Your task to perform on an android device: create a new album in the google photos Image 0: 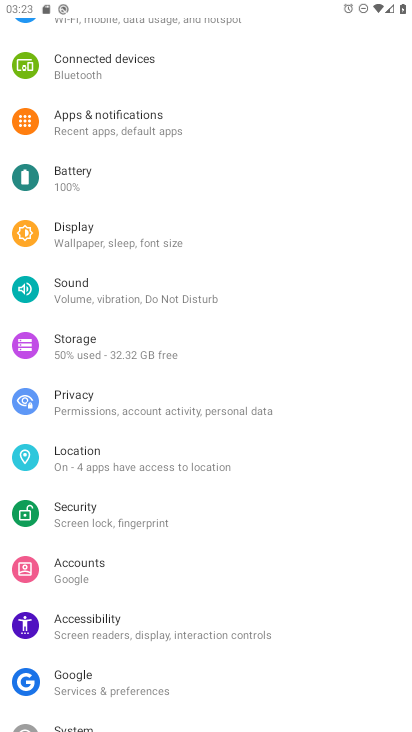
Step 0: press home button
Your task to perform on an android device: create a new album in the google photos Image 1: 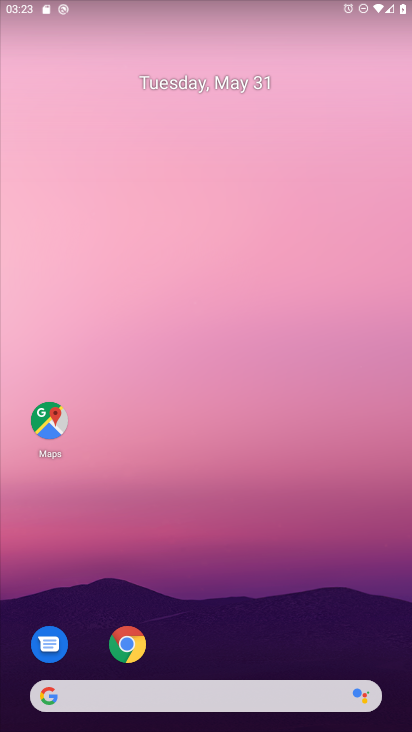
Step 1: drag from (266, 615) to (182, 77)
Your task to perform on an android device: create a new album in the google photos Image 2: 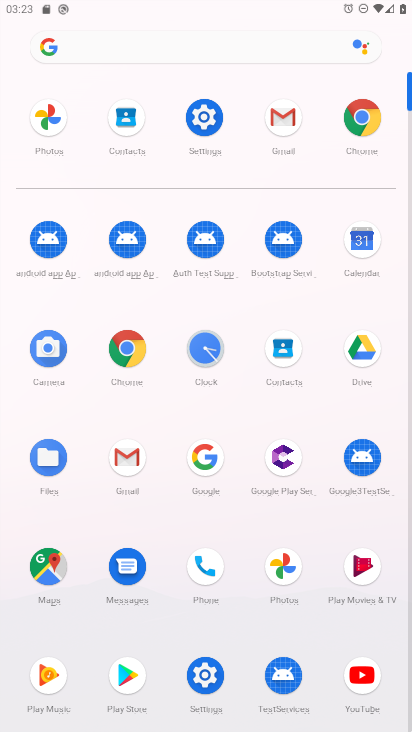
Step 2: click (293, 562)
Your task to perform on an android device: create a new album in the google photos Image 3: 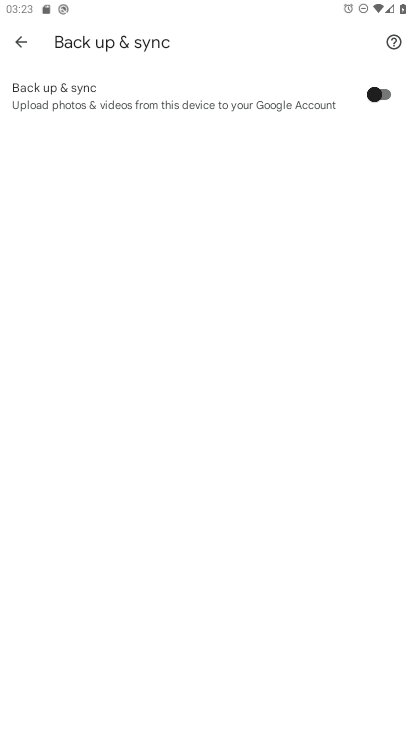
Step 3: click (13, 48)
Your task to perform on an android device: create a new album in the google photos Image 4: 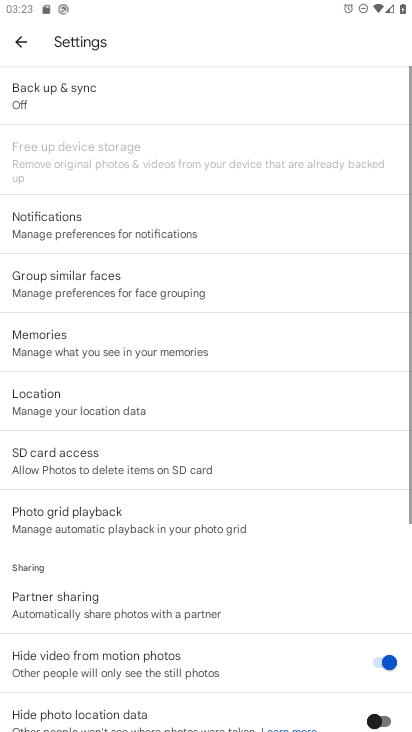
Step 4: click (13, 48)
Your task to perform on an android device: create a new album in the google photos Image 5: 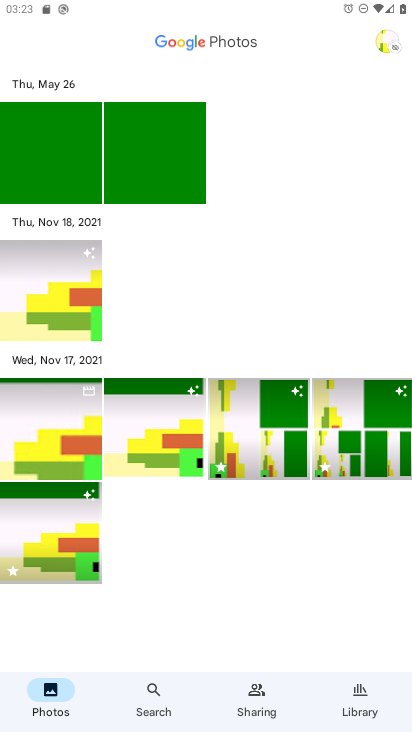
Step 5: click (370, 701)
Your task to perform on an android device: create a new album in the google photos Image 6: 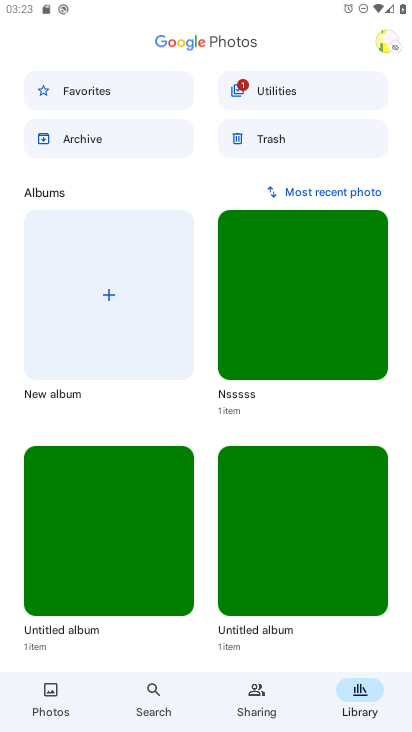
Step 6: click (98, 299)
Your task to perform on an android device: create a new album in the google photos Image 7: 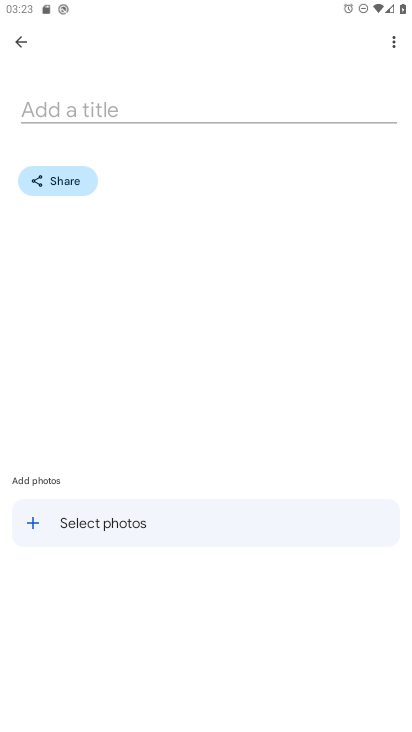
Step 7: click (155, 111)
Your task to perform on an android device: create a new album in the google photos Image 8: 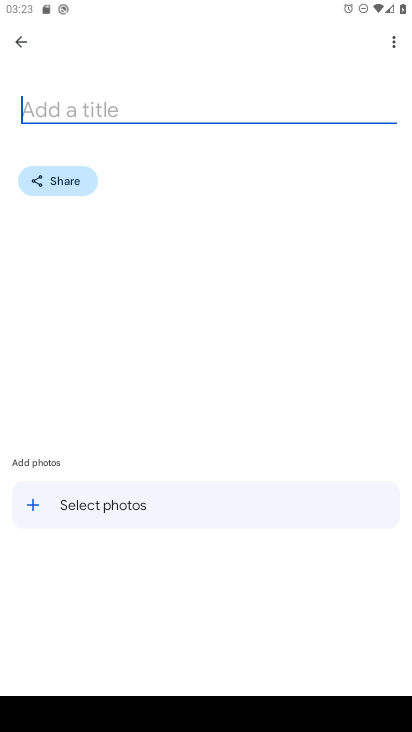
Step 8: type "jaguar"
Your task to perform on an android device: create a new album in the google photos Image 9: 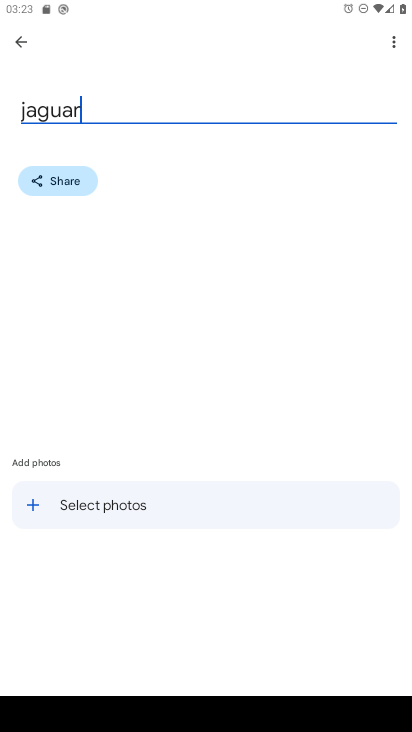
Step 9: click (91, 506)
Your task to perform on an android device: create a new album in the google photos Image 10: 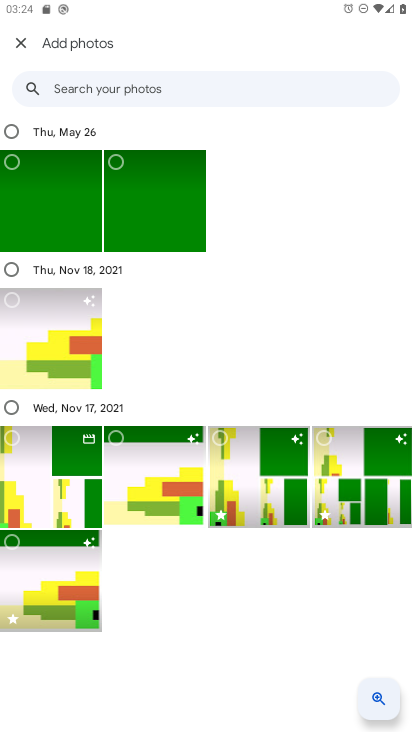
Step 10: click (18, 157)
Your task to perform on an android device: create a new album in the google photos Image 11: 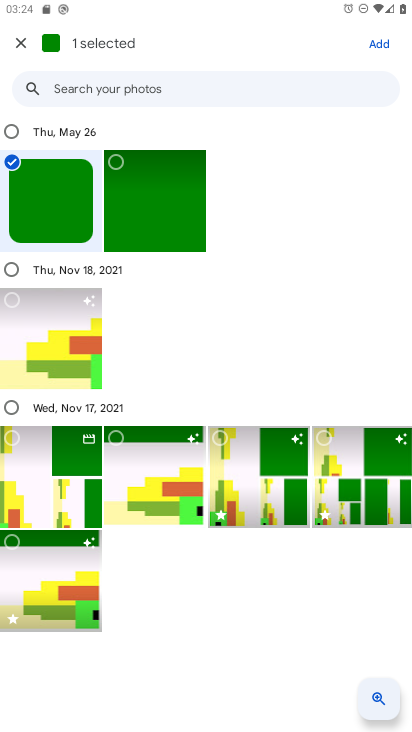
Step 11: click (381, 41)
Your task to perform on an android device: create a new album in the google photos Image 12: 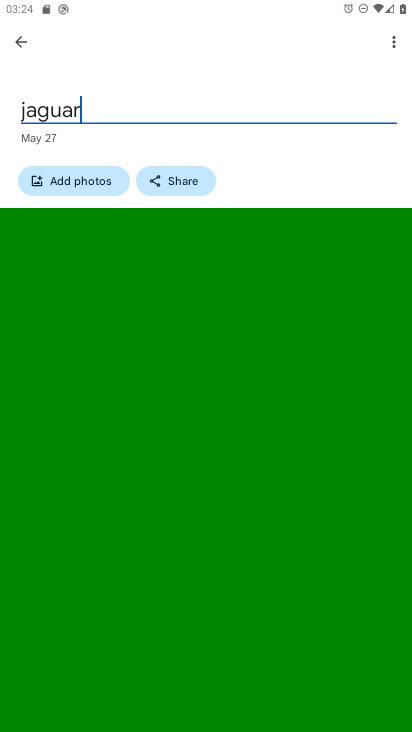
Step 12: press enter
Your task to perform on an android device: create a new album in the google photos Image 13: 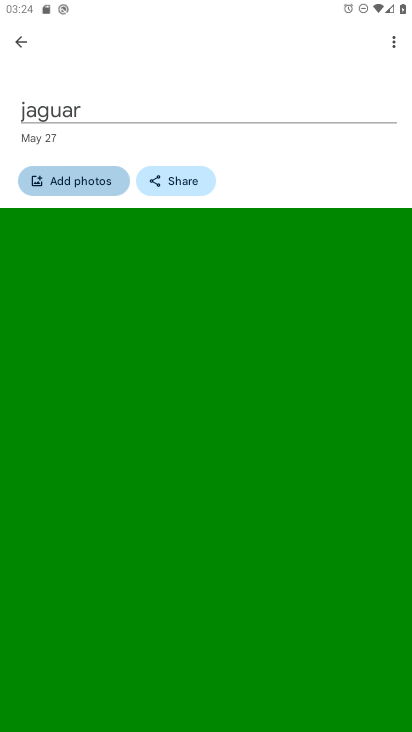
Step 13: press enter
Your task to perform on an android device: create a new album in the google photos Image 14: 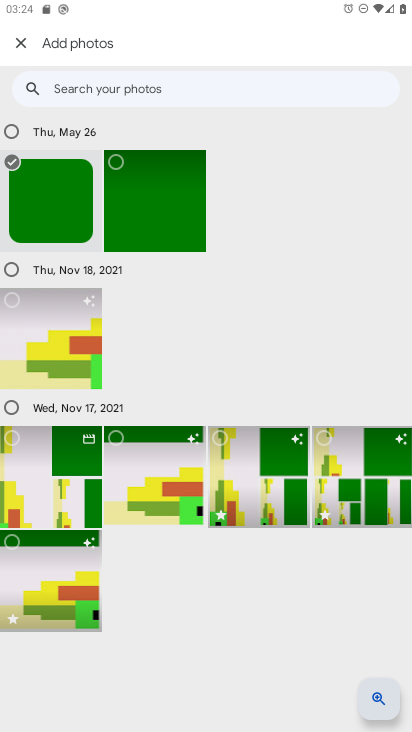
Step 14: click (139, 182)
Your task to perform on an android device: create a new album in the google photos Image 15: 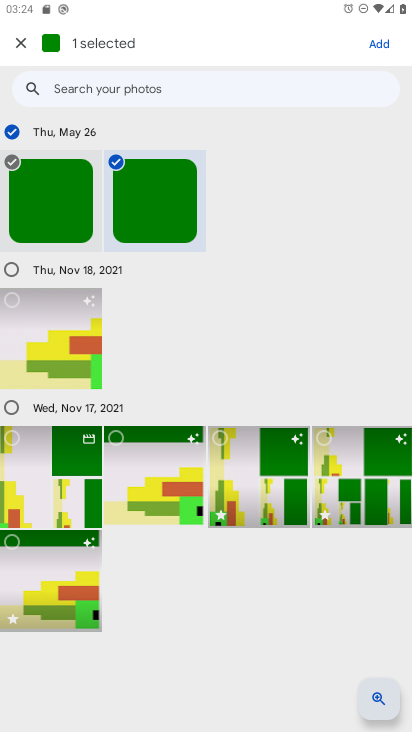
Step 15: click (379, 41)
Your task to perform on an android device: create a new album in the google photos Image 16: 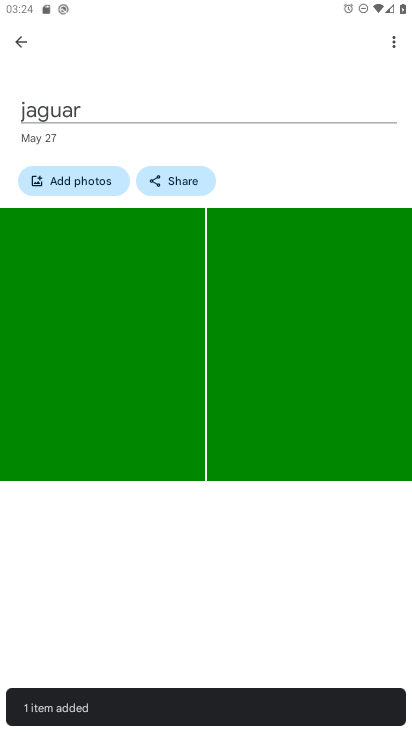
Step 16: press enter
Your task to perform on an android device: create a new album in the google photos Image 17: 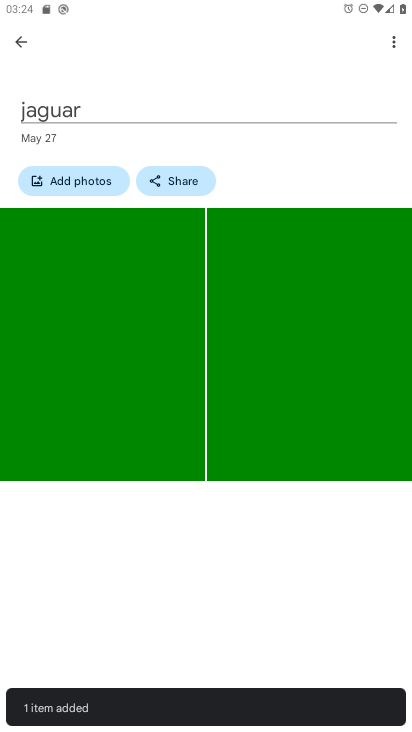
Step 17: press enter
Your task to perform on an android device: create a new album in the google photos Image 18: 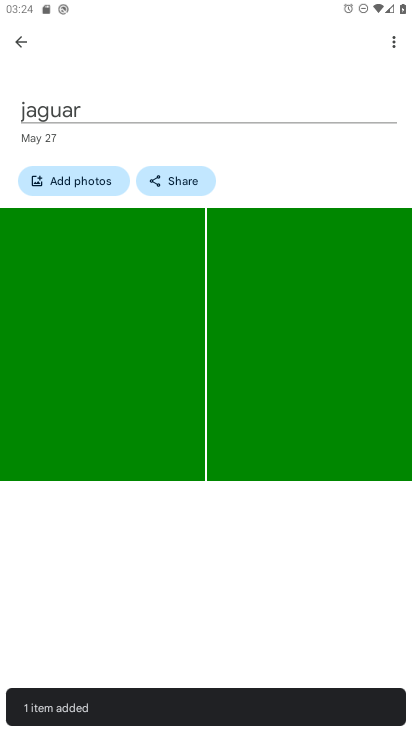
Step 18: press enter
Your task to perform on an android device: create a new album in the google photos Image 19: 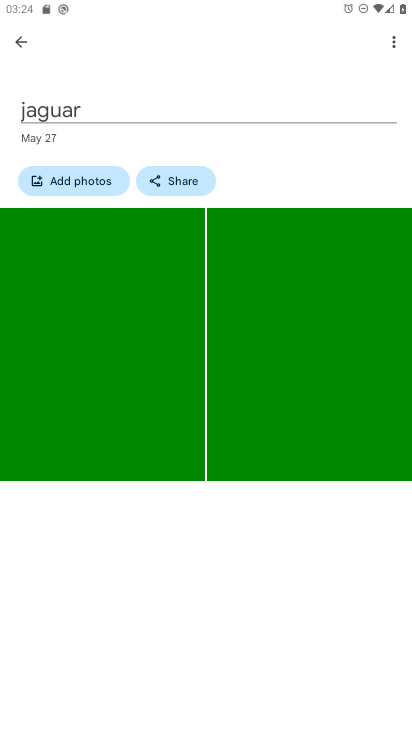
Step 19: press enter
Your task to perform on an android device: create a new album in the google photos Image 20: 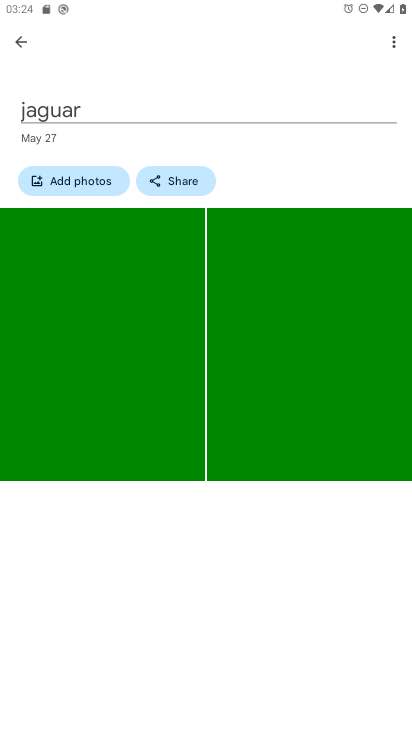
Step 20: press enter
Your task to perform on an android device: create a new album in the google photos Image 21: 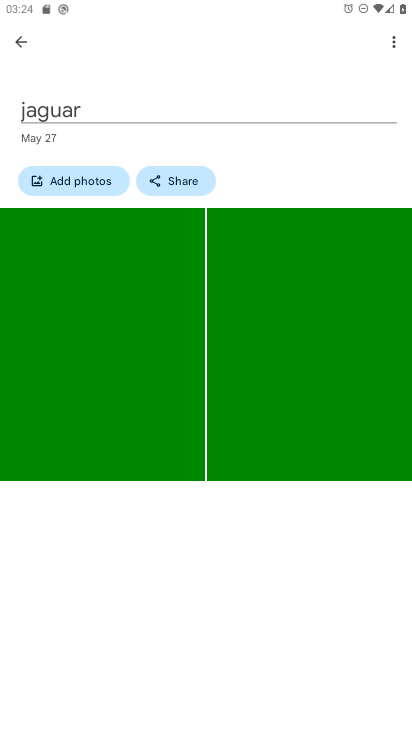
Step 21: press enter
Your task to perform on an android device: create a new album in the google photos Image 22: 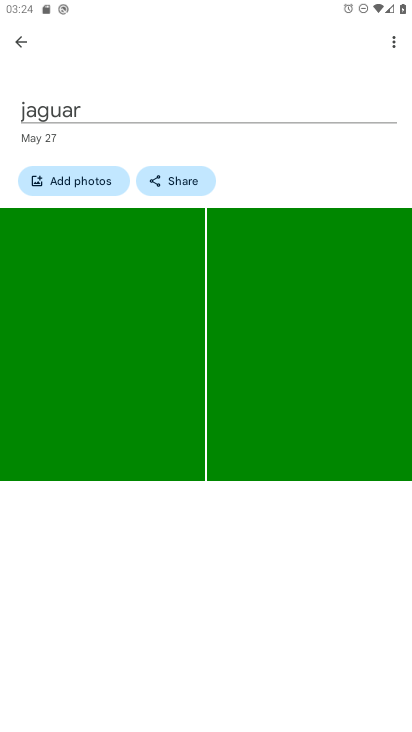
Step 22: press enter
Your task to perform on an android device: create a new album in the google photos Image 23: 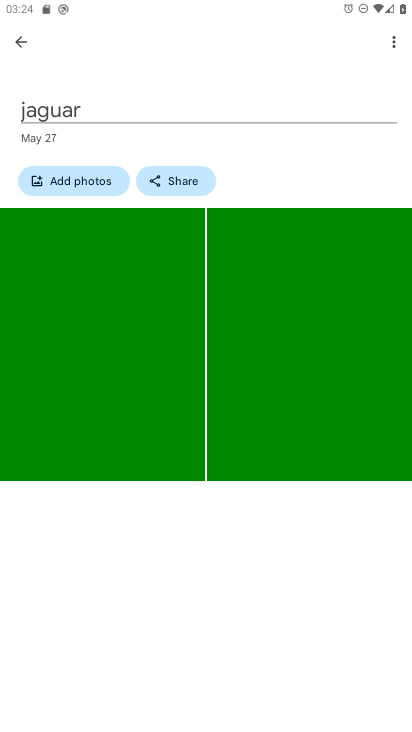
Step 23: task complete